Your task to perform on an android device: Turn on the flashlight Image 0: 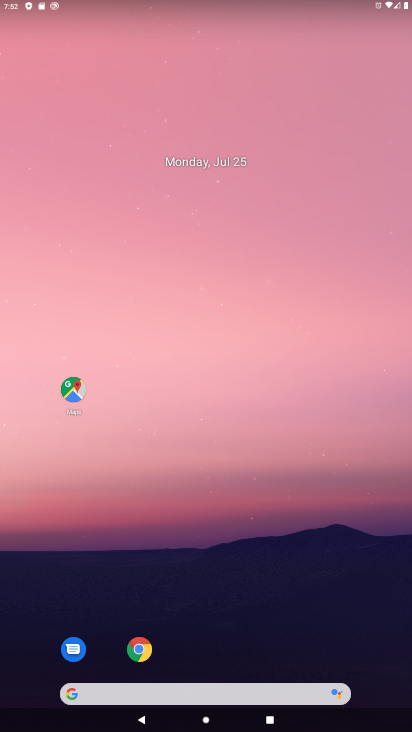
Step 0: drag from (198, 9) to (215, 537)
Your task to perform on an android device: Turn on the flashlight Image 1: 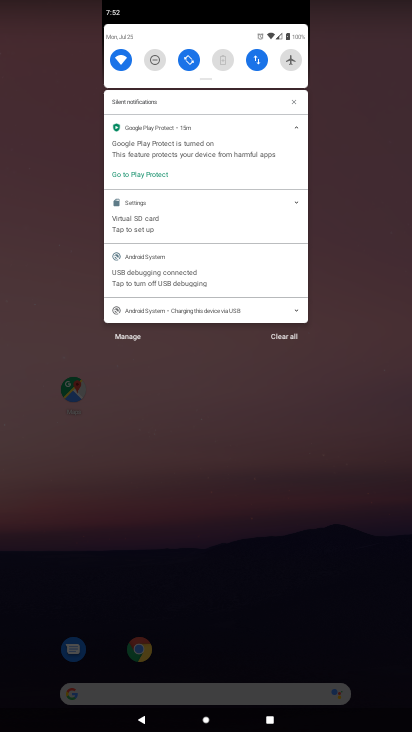
Step 1: drag from (208, 78) to (203, 326)
Your task to perform on an android device: Turn on the flashlight Image 2: 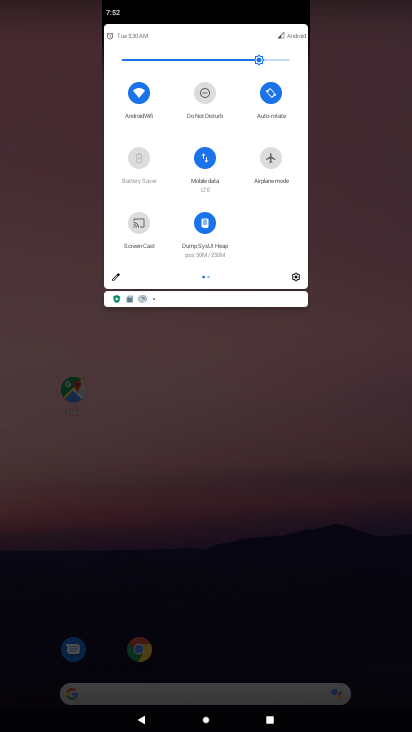
Step 2: click (115, 277)
Your task to perform on an android device: Turn on the flashlight Image 3: 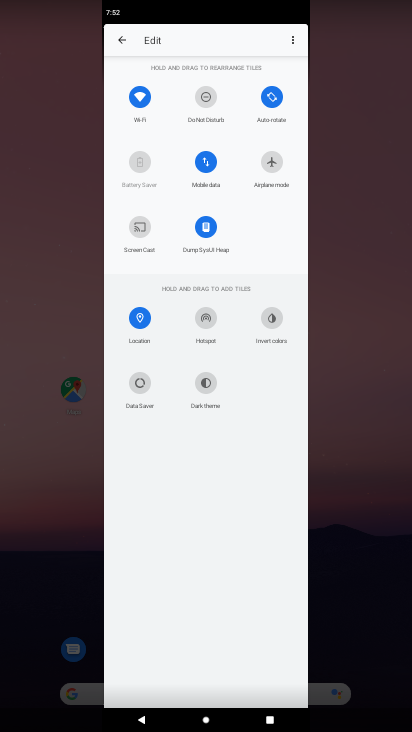
Step 3: task complete